Your task to perform on an android device: turn off translation in the chrome app Image 0: 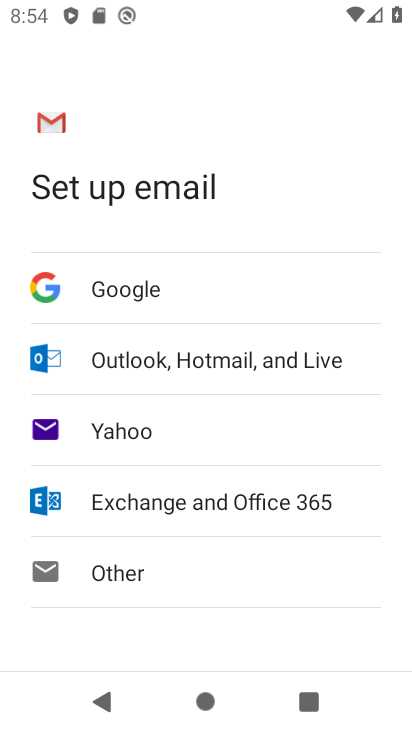
Step 0: press home button
Your task to perform on an android device: turn off translation in the chrome app Image 1: 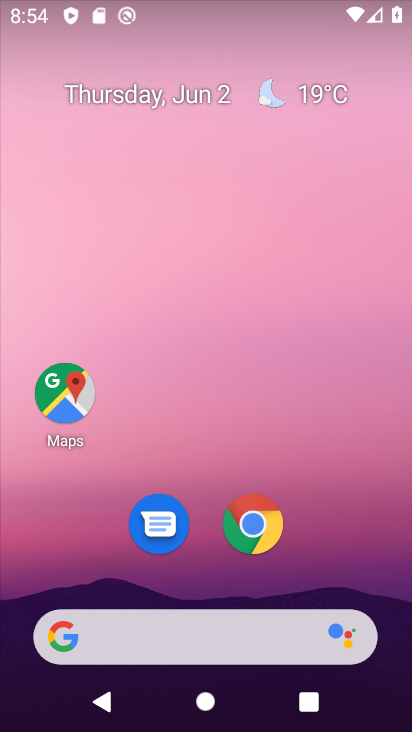
Step 1: click (258, 529)
Your task to perform on an android device: turn off translation in the chrome app Image 2: 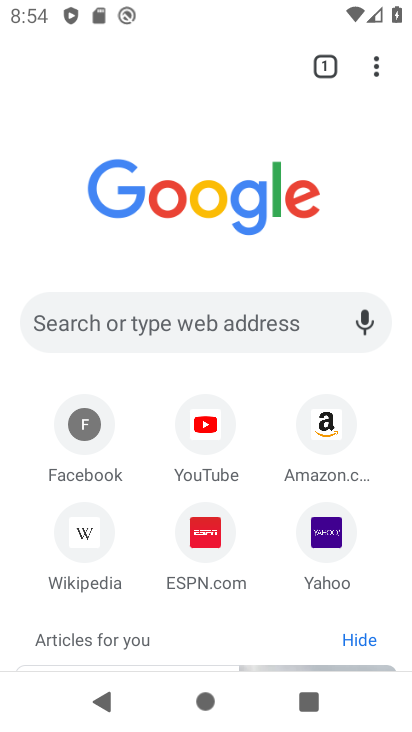
Step 2: click (375, 65)
Your task to perform on an android device: turn off translation in the chrome app Image 3: 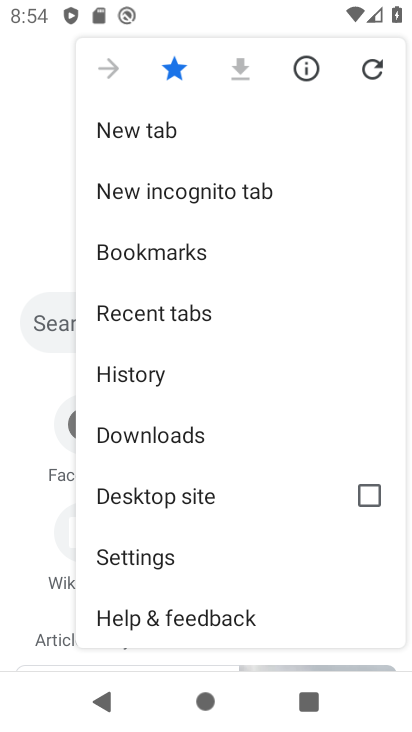
Step 3: click (220, 555)
Your task to perform on an android device: turn off translation in the chrome app Image 4: 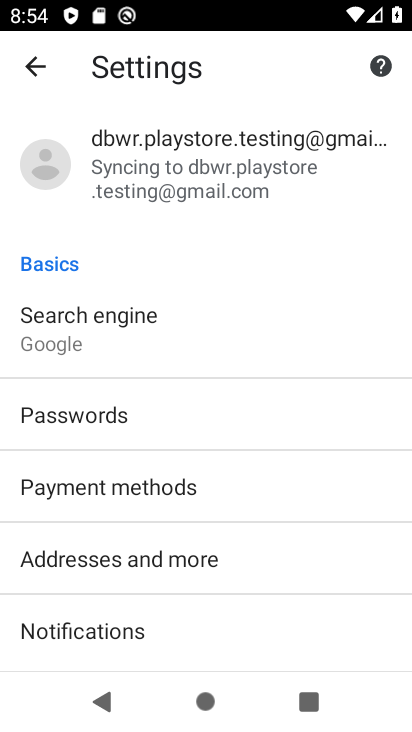
Step 4: drag from (243, 493) to (273, 144)
Your task to perform on an android device: turn off translation in the chrome app Image 5: 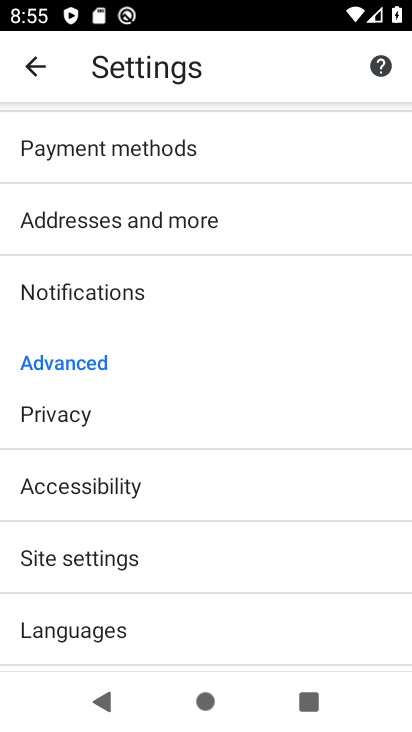
Step 5: click (207, 619)
Your task to perform on an android device: turn off translation in the chrome app Image 6: 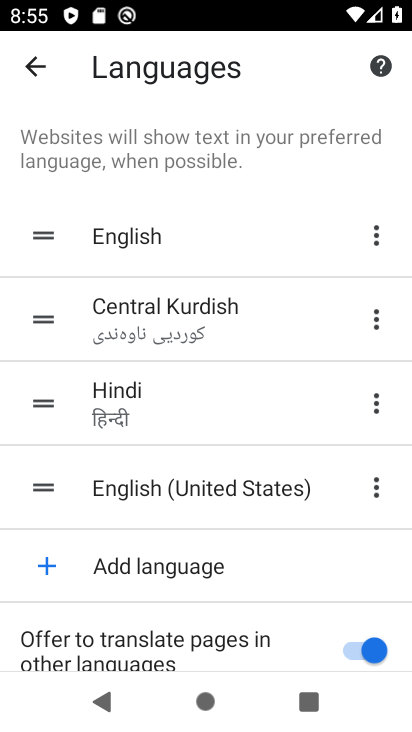
Step 6: click (371, 633)
Your task to perform on an android device: turn off translation in the chrome app Image 7: 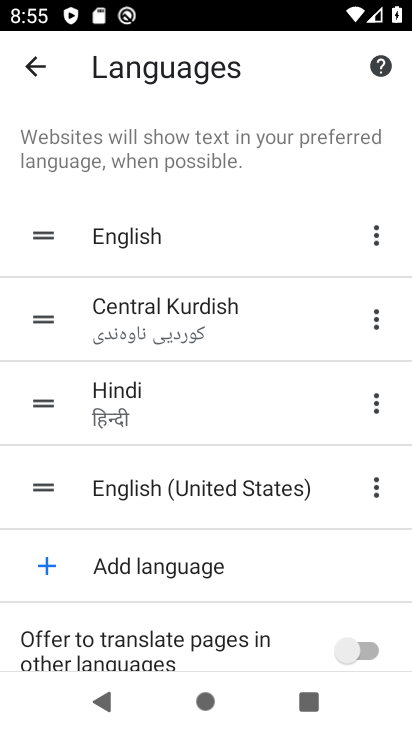
Step 7: task complete